Your task to perform on an android device: Go to Reddit.com Image 0: 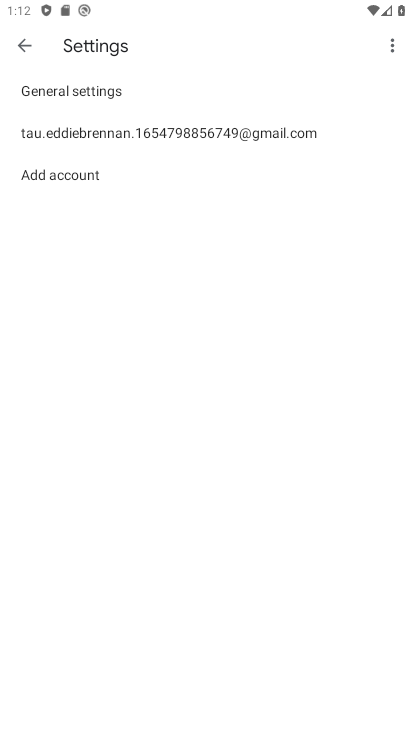
Step 0: press home button
Your task to perform on an android device: Go to Reddit.com Image 1: 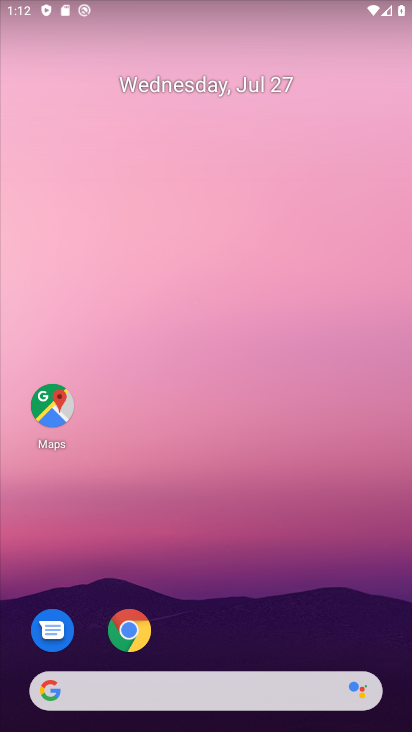
Step 1: click (140, 632)
Your task to perform on an android device: Go to Reddit.com Image 2: 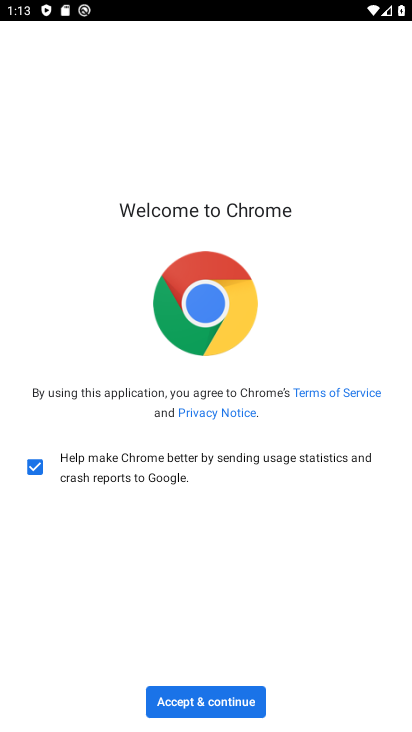
Step 2: click (233, 696)
Your task to perform on an android device: Go to Reddit.com Image 3: 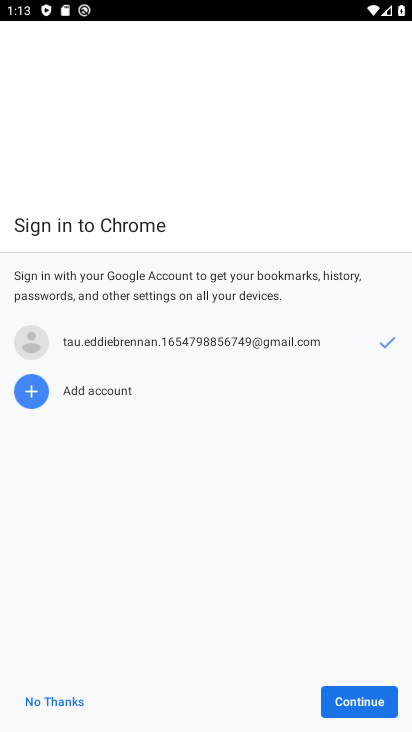
Step 3: click (343, 693)
Your task to perform on an android device: Go to Reddit.com Image 4: 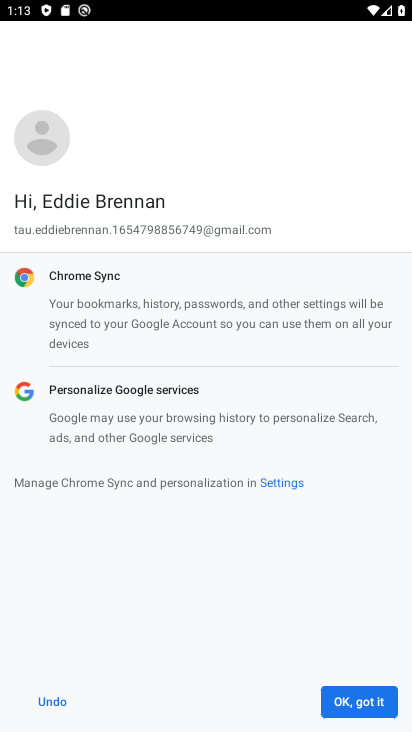
Step 4: click (381, 699)
Your task to perform on an android device: Go to Reddit.com Image 5: 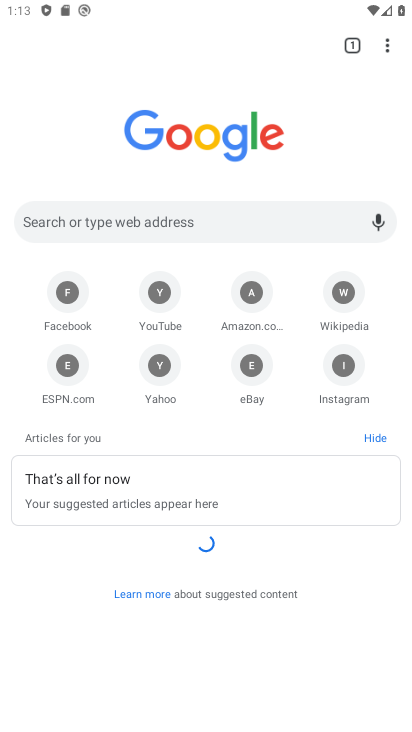
Step 5: click (184, 222)
Your task to perform on an android device: Go to Reddit.com Image 6: 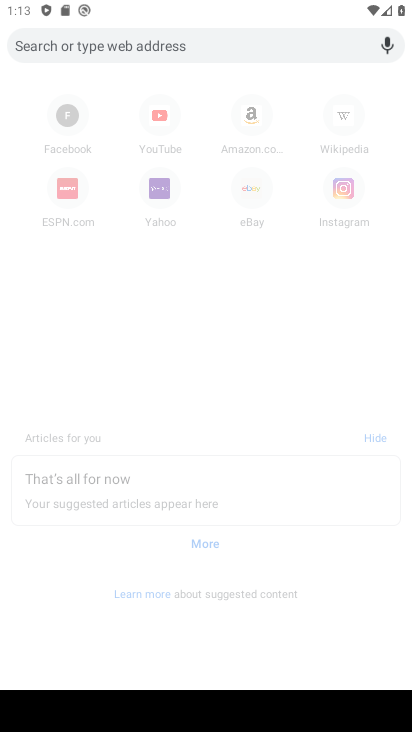
Step 6: type "reddit.com"
Your task to perform on an android device: Go to Reddit.com Image 7: 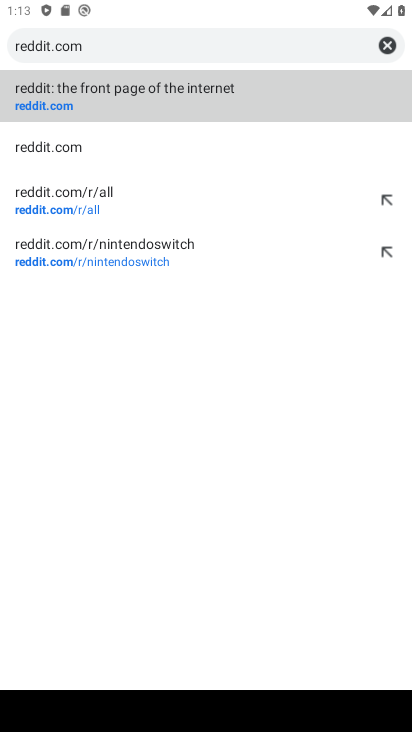
Step 7: click (129, 91)
Your task to perform on an android device: Go to Reddit.com Image 8: 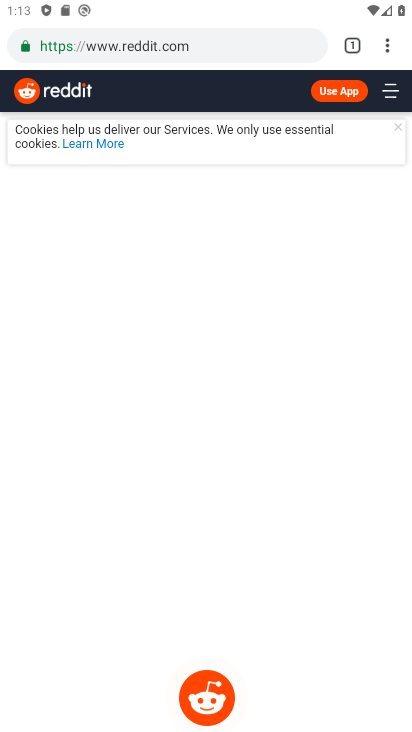
Step 8: task complete